Your task to perform on an android device: turn off airplane mode Image 0: 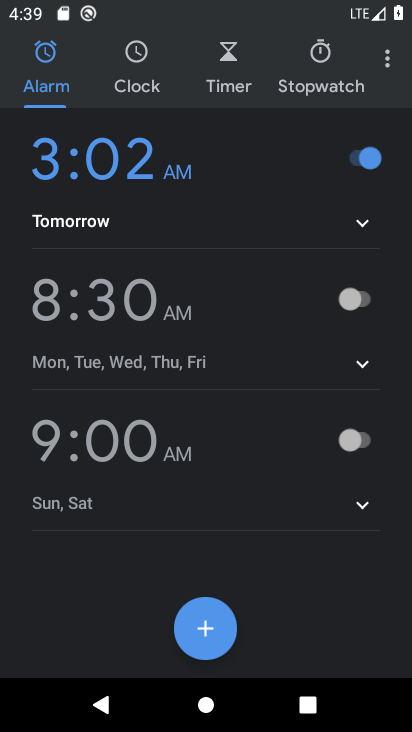
Step 0: press home button
Your task to perform on an android device: turn off airplane mode Image 1: 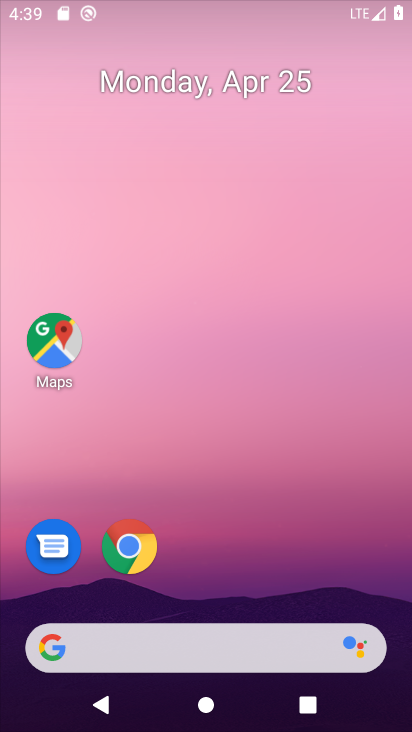
Step 1: drag from (253, 578) to (365, 34)
Your task to perform on an android device: turn off airplane mode Image 2: 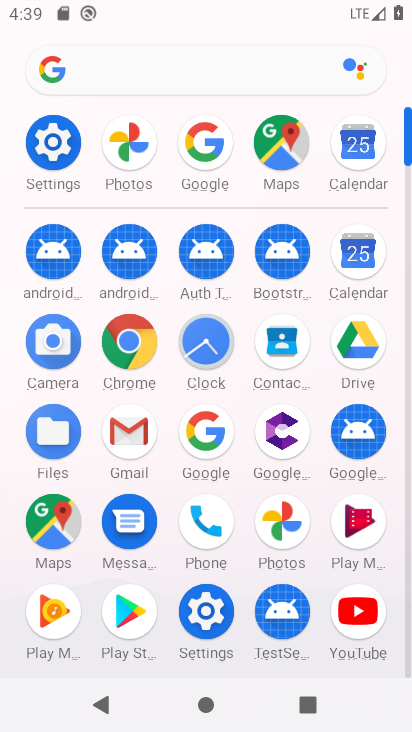
Step 2: click (51, 128)
Your task to perform on an android device: turn off airplane mode Image 3: 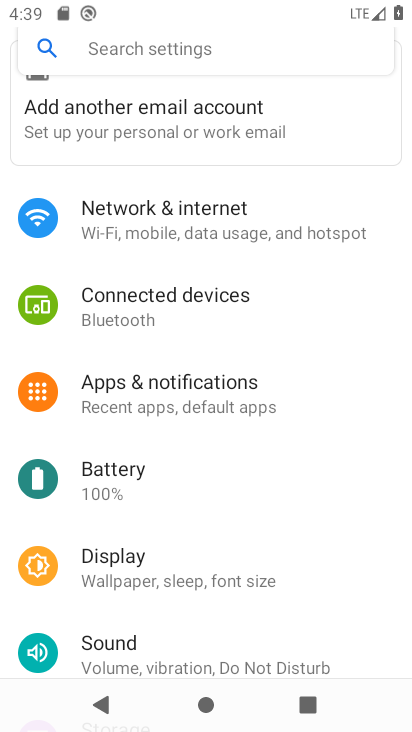
Step 3: click (181, 217)
Your task to perform on an android device: turn off airplane mode Image 4: 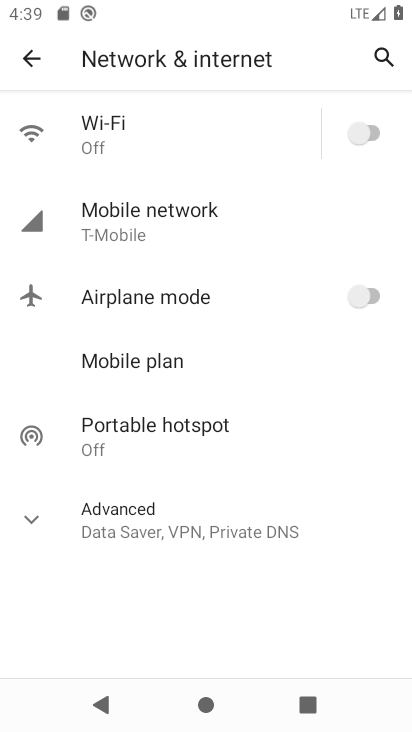
Step 4: task complete